Your task to perform on an android device: set an alarm Image 0: 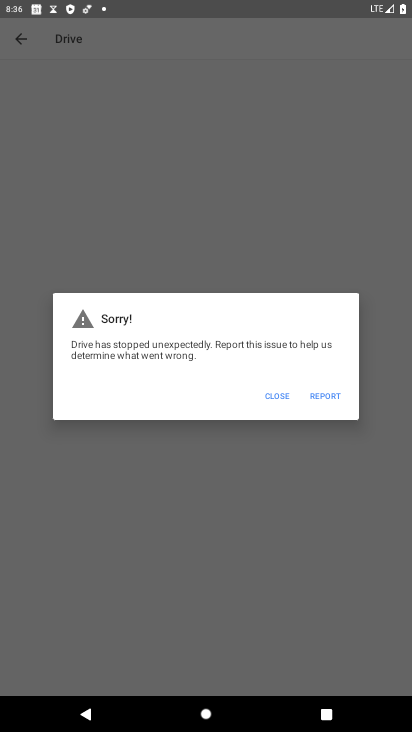
Step 0: press home button
Your task to perform on an android device: set an alarm Image 1: 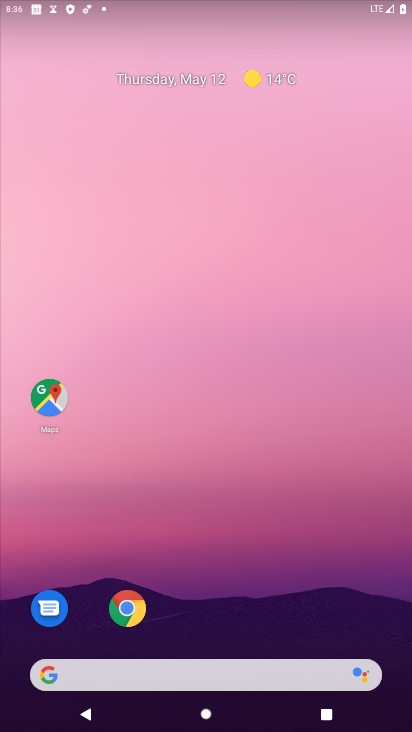
Step 1: drag from (202, 662) to (216, 296)
Your task to perform on an android device: set an alarm Image 2: 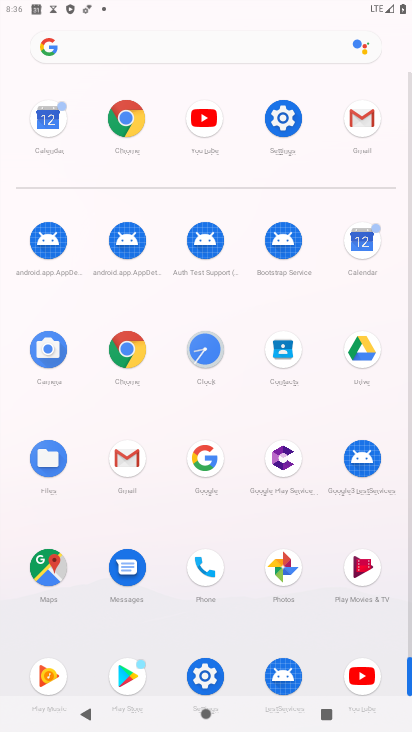
Step 2: click (206, 359)
Your task to perform on an android device: set an alarm Image 3: 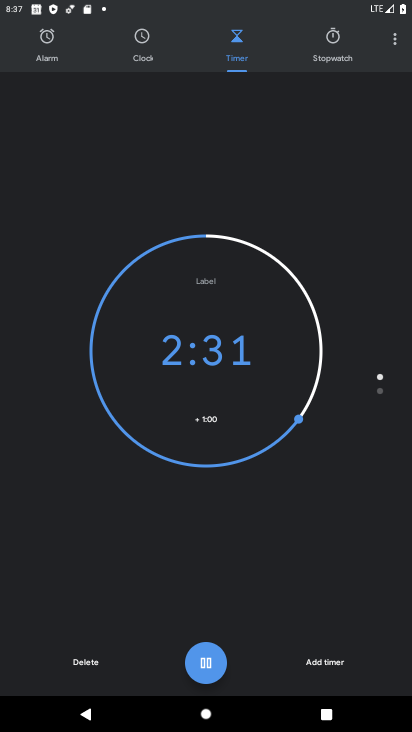
Step 3: click (42, 46)
Your task to perform on an android device: set an alarm Image 4: 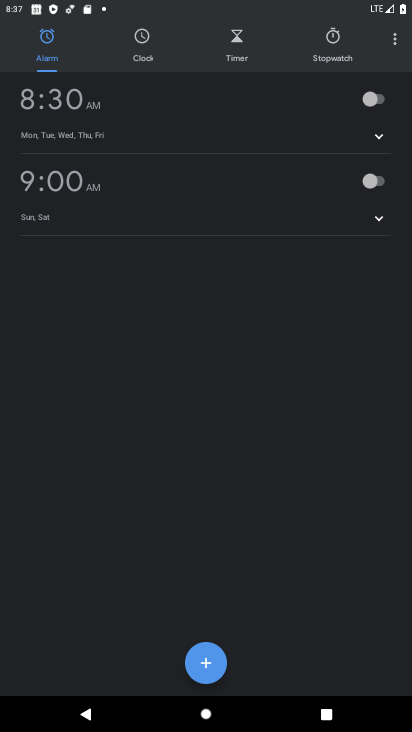
Step 4: click (373, 99)
Your task to perform on an android device: set an alarm Image 5: 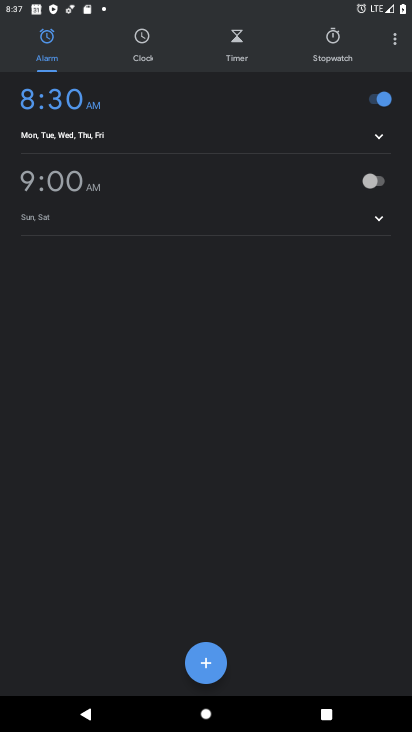
Step 5: task complete